Your task to perform on an android device: Search for vegetarian restaurants on Maps Image 0: 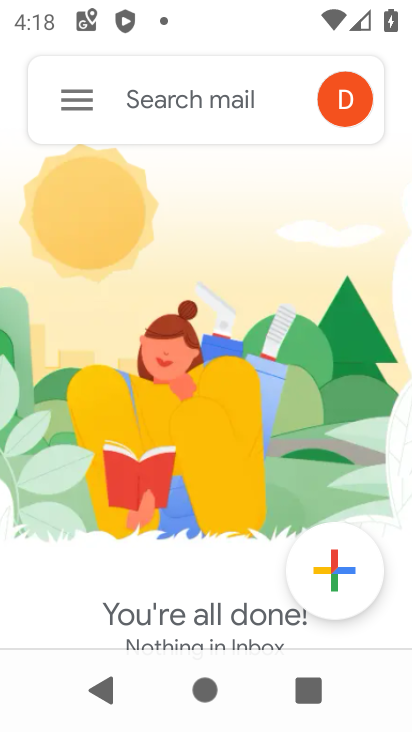
Step 0: press home button
Your task to perform on an android device: Search for vegetarian restaurants on Maps Image 1: 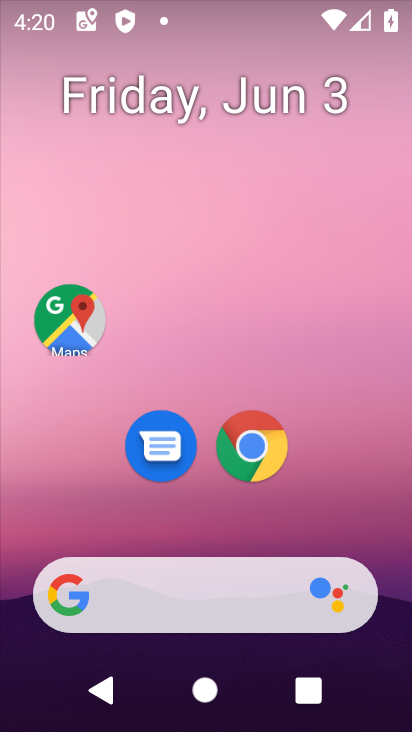
Step 1: task complete